Your task to perform on an android device: turn on notifications settings in the gmail app Image 0: 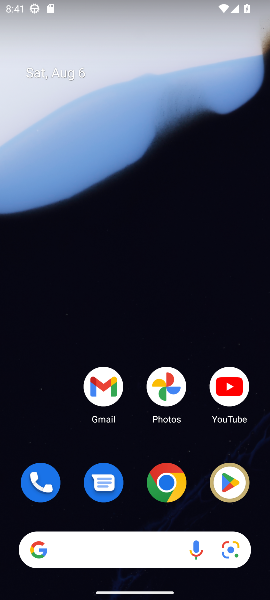
Step 0: drag from (7, 550) to (104, 9)
Your task to perform on an android device: turn on notifications settings in the gmail app Image 1: 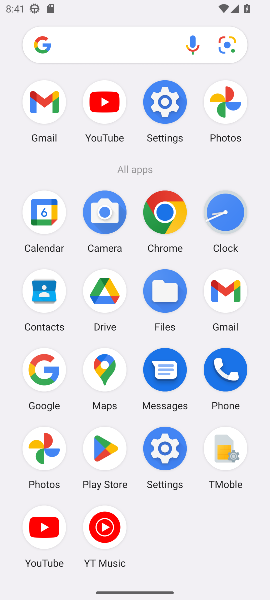
Step 1: click (219, 292)
Your task to perform on an android device: turn on notifications settings in the gmail app Image 2: 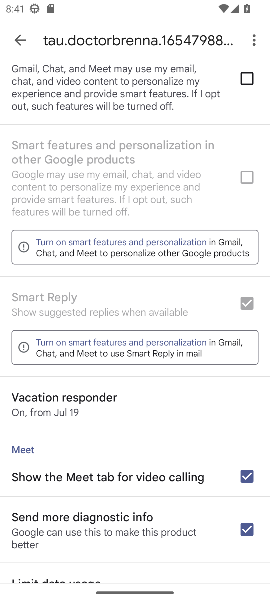
Step 2: click (21, 43)
Your task to perform on an android device: turn on notifications settings in the gmail app Image 3: 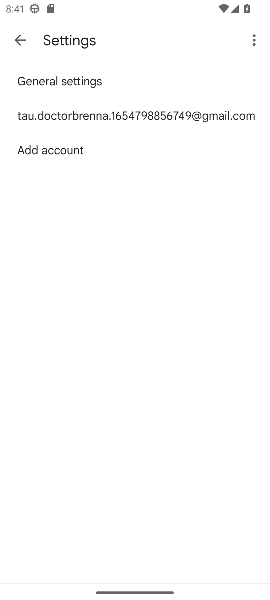
Step 3: click (21, 43)
Your task to perform on an android device: turn on notifications settings in the gmail app Image 4: 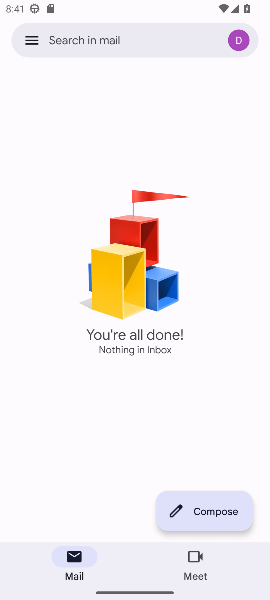
Step 4: click (21, 40)
Your task to perform on an android device: turn on notifications settings in the gmail app Image 5: 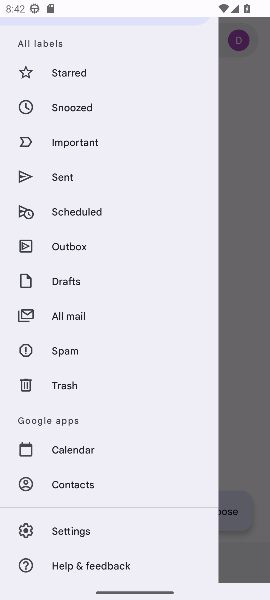
Step 5: click (72, 534)
Your task to perform on an android device: turn on notifications settings in the gmail app Image 6: 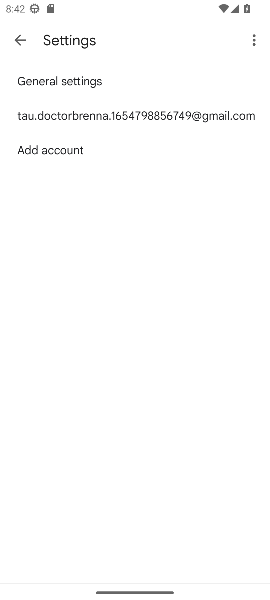
Step 6: click (102, 118)
Your task to perform on an android device: turn on notifications settings in the gmail app Image 7: 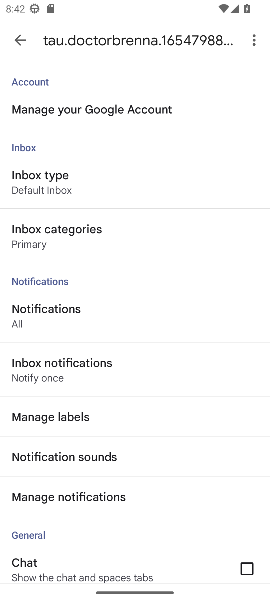
Step 7: click (42, 316)
Your task to perform on an android device: turn on notifications settings in the gmail app Image 8: 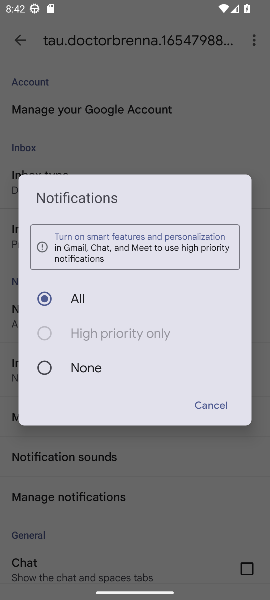
Step 8: task complete